Your task to perform on an android device: open app "Indeed Job Search" (install if not already installed) and enter user name: "quixotic@inbox.com" and password: "microphones" Image 0: 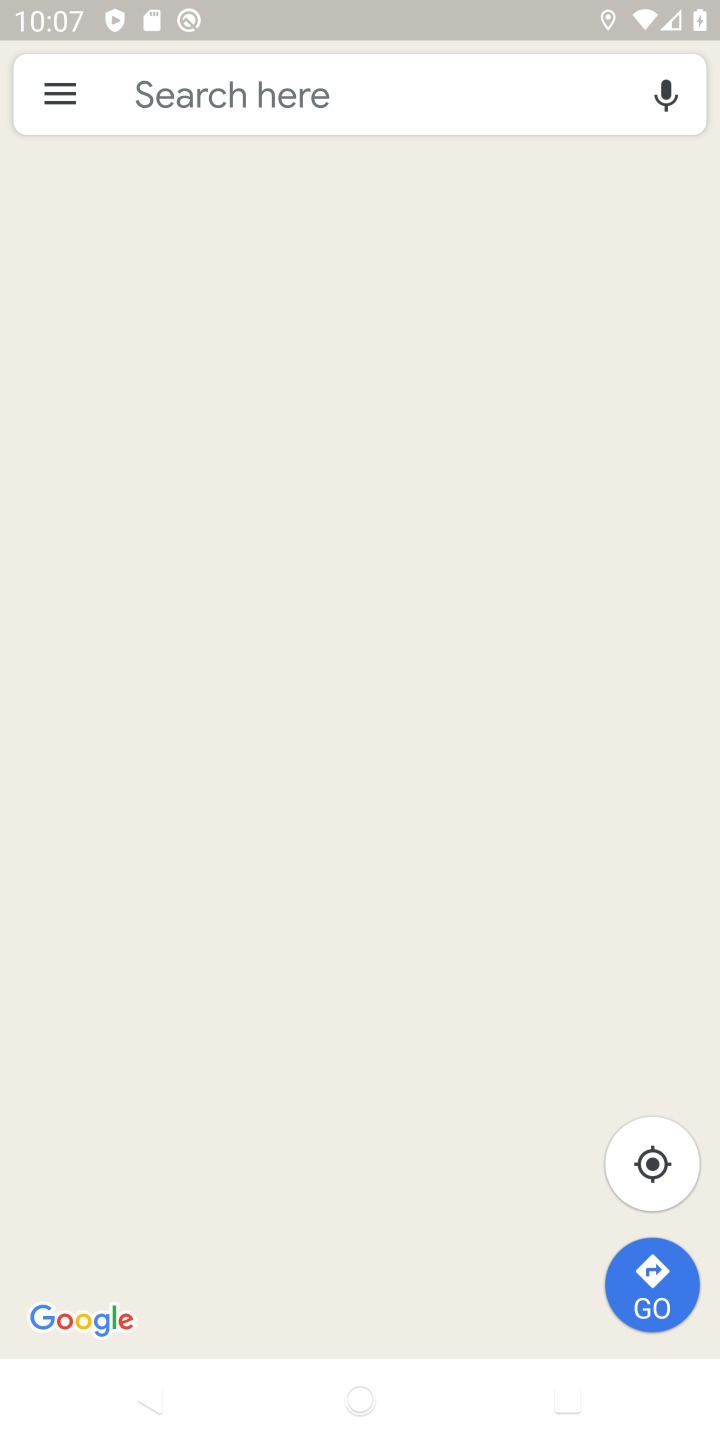
Step 0: press home button
Your task to perform on an android device: open app "Indeed Job Search" (install if not already installed) and enter user name: "quixotic@inbox.com" and password: "microphones" Image 1: 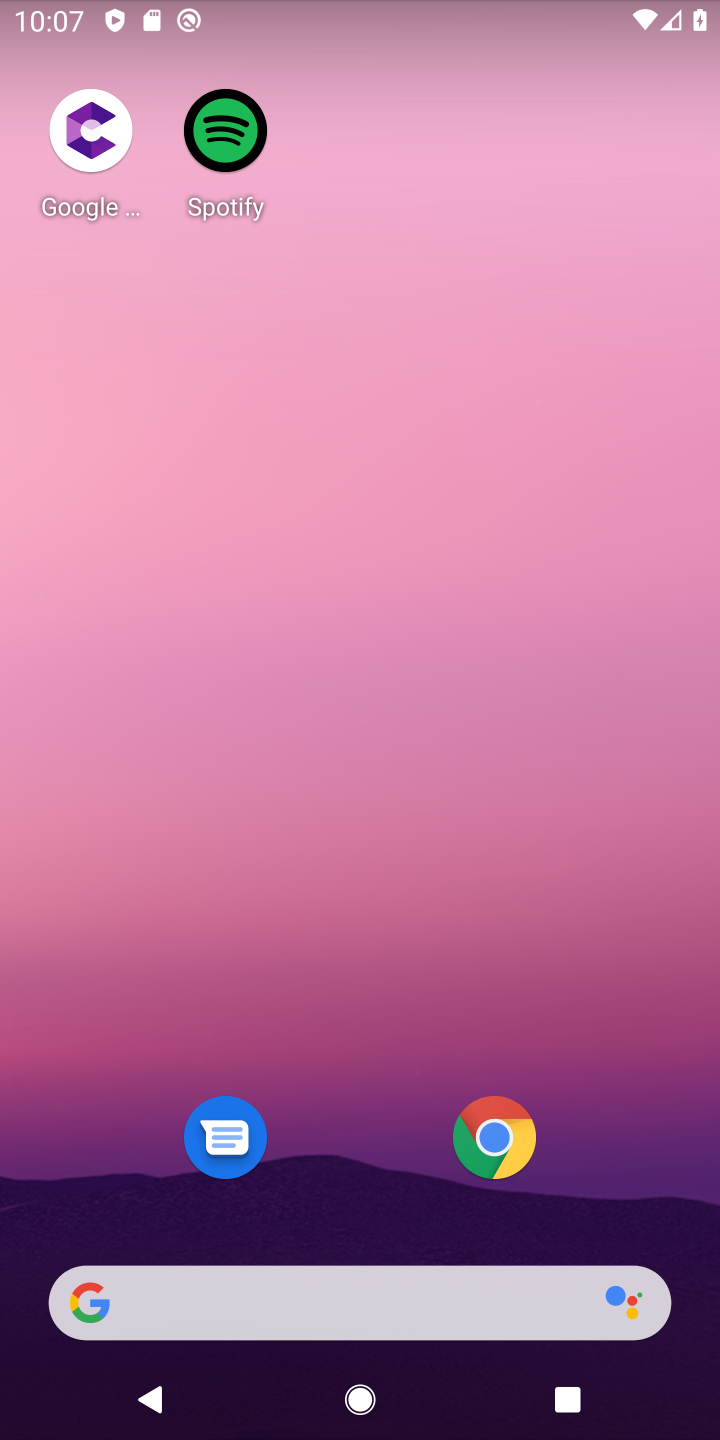
Step 1: press home button
Your task to perform on an android device: open app "Indeed Job Search" (install if not already installed) and enter user name: "quixotic@inbox.com" and password: "microphones" Image 2: 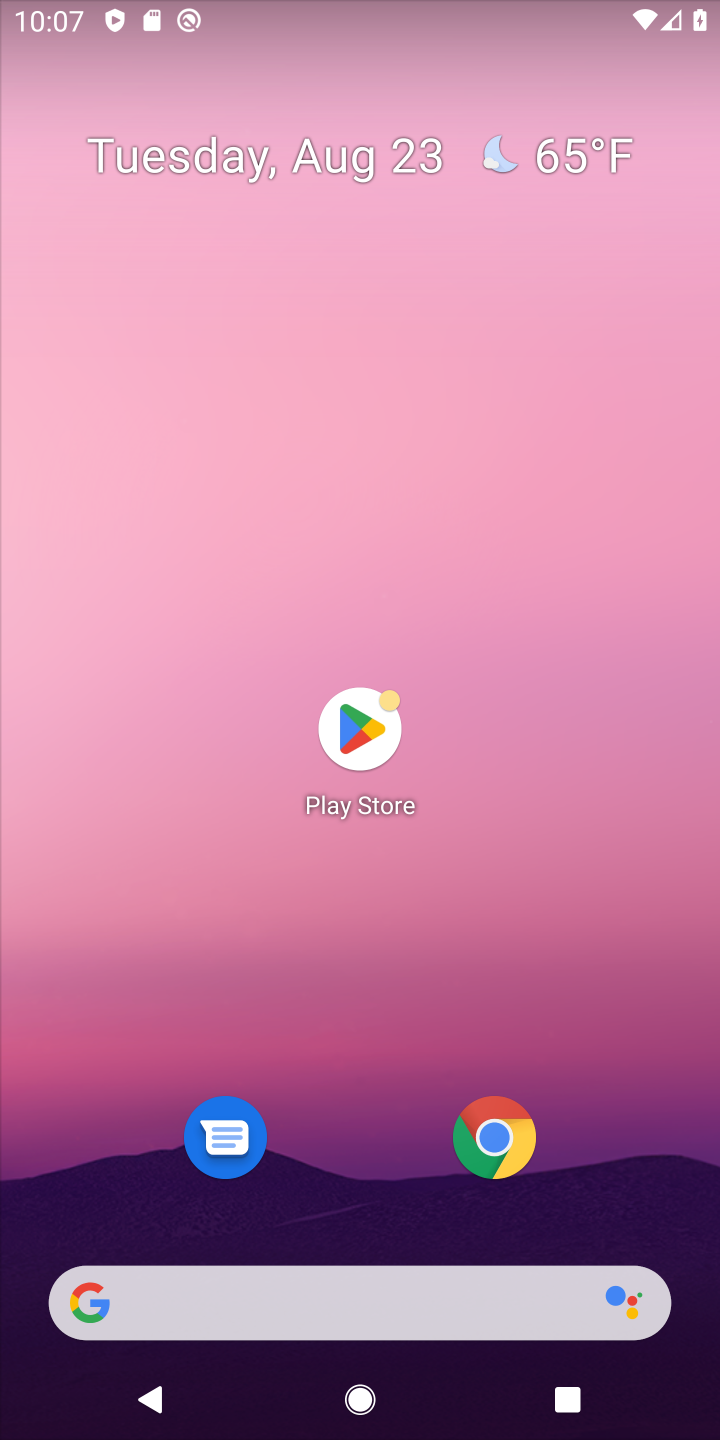
Step 2: click (364, 733)
Your task to perform on an android device: open app "Indeed Job Search" (install if not already installed) and enter user name: "quixotic@inbox.com" and password: "microphones" Image 3: 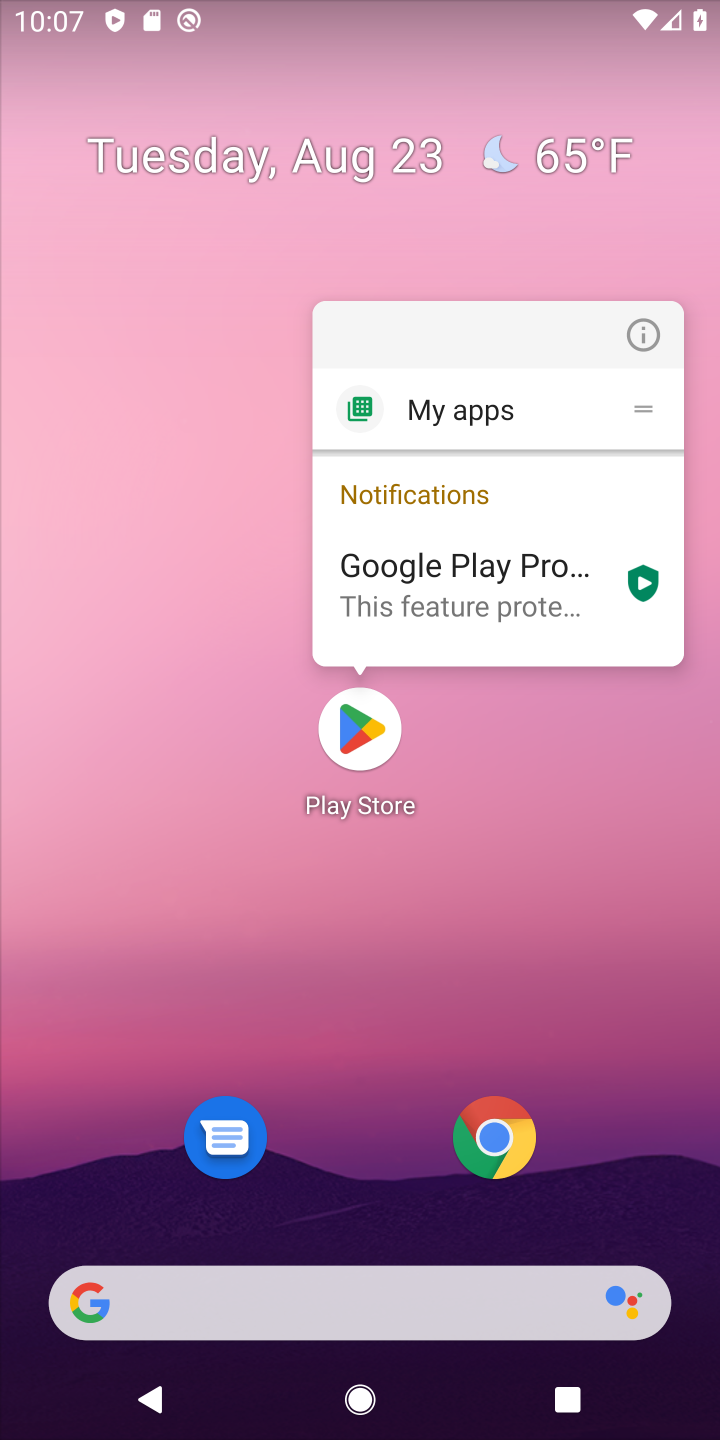
Step 3: click (364, 747)
Your task to perform on an android device: open app "Indeed Job Search" (install if not already installed) and enter user name: "quixotic@inbox.com" and password: "microphones" Image 4: 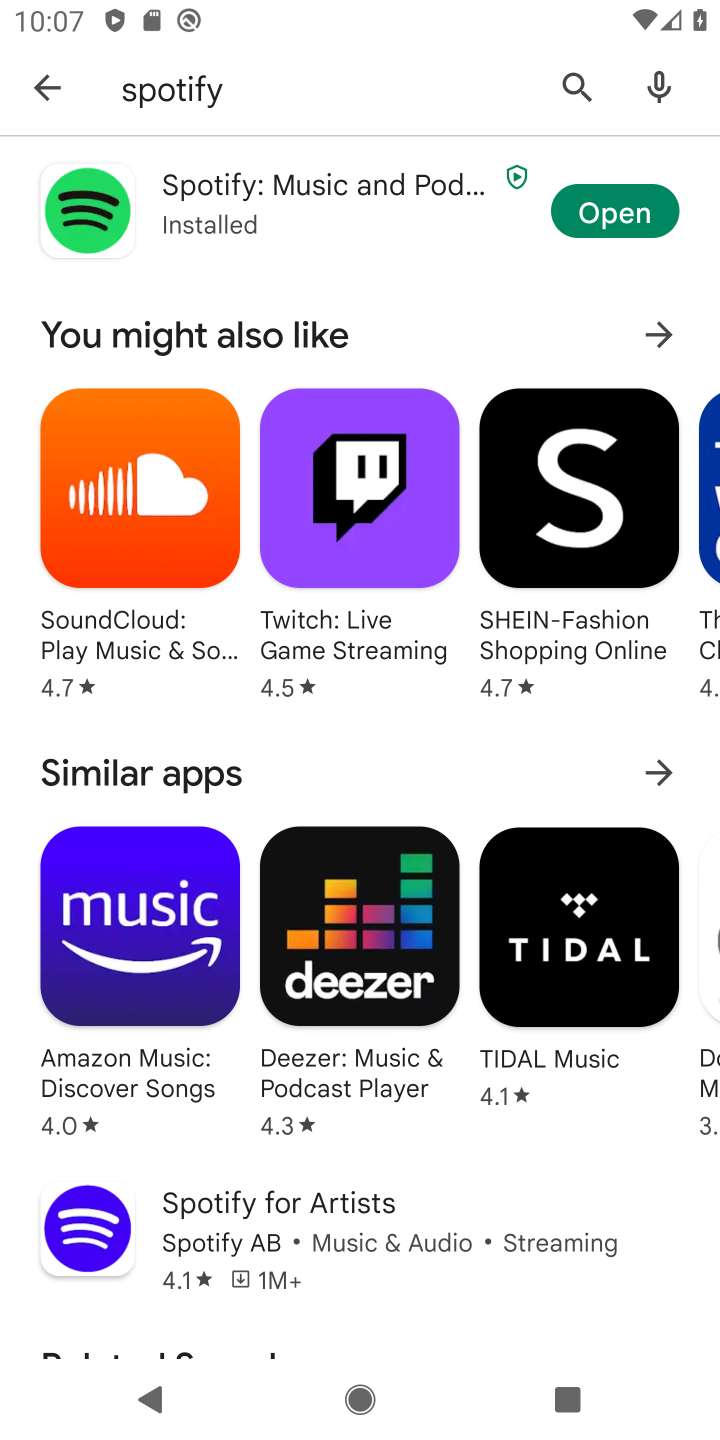
Step 4: click (563, 83)
Your task to perform on an android device: open app "Indeed Job Search" (install if not already installed) and enter user name: "quixotic@inbox.com" and password: "microphones" Image 5: 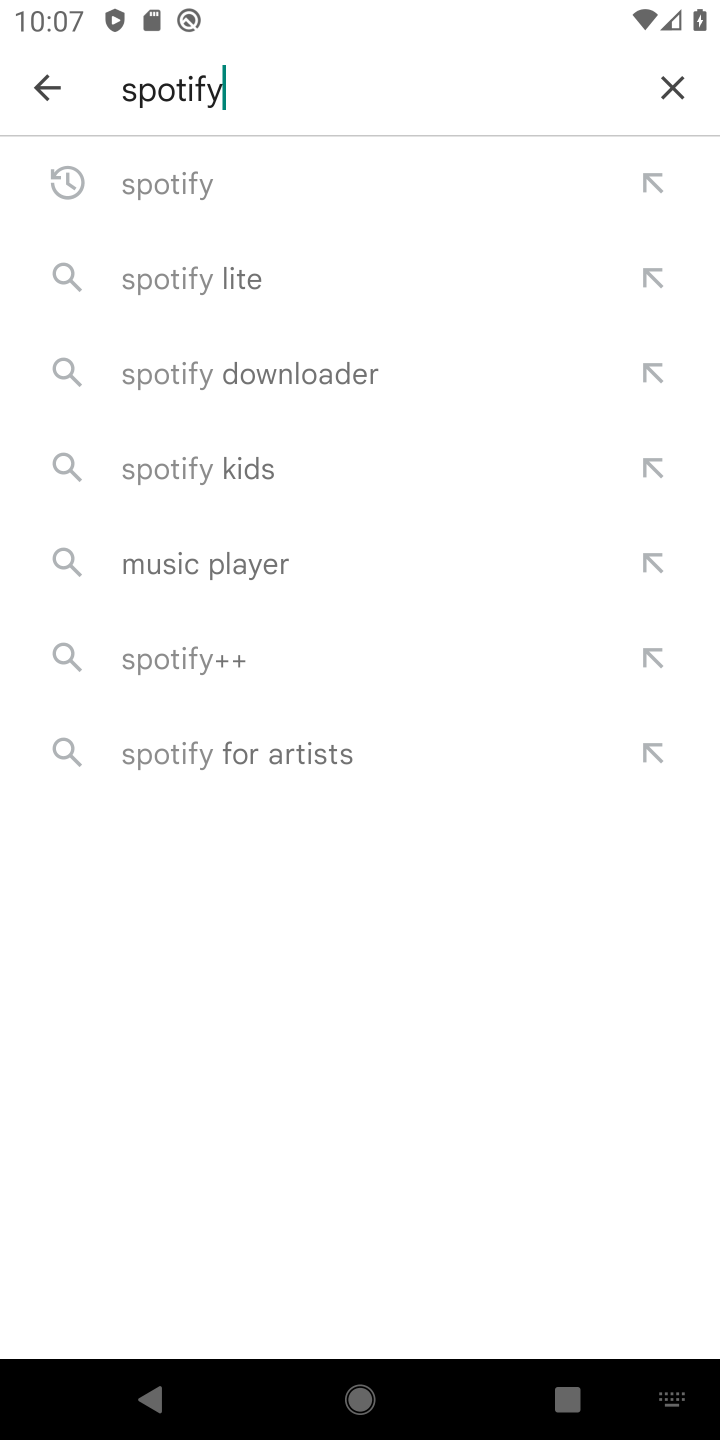
Step 5: click (669, 78)
Your task to perform on an android device: open app "Indeed Job Search" (install if not already installed) and enter user name: "quixotic@inbox.com" and password: "microphones" Image 6: 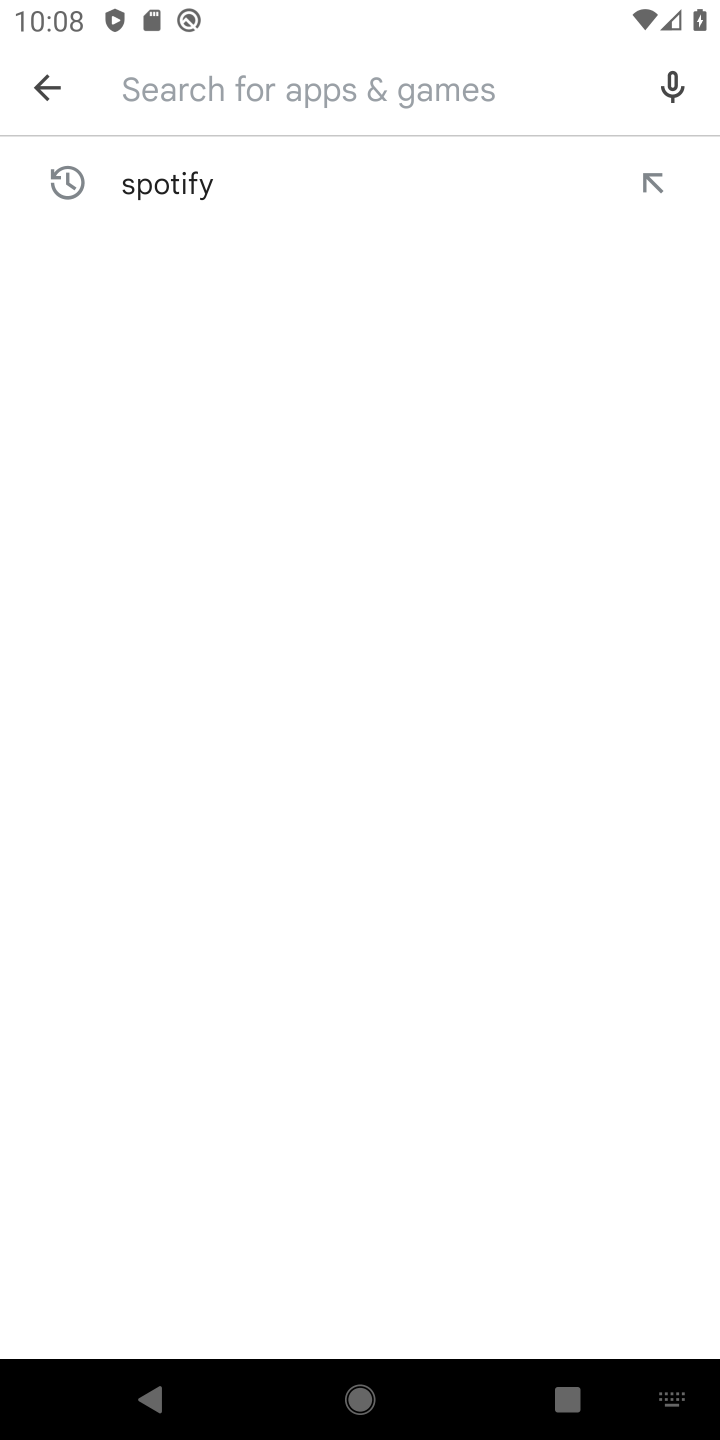
Step 6: type "Indeed Job Search"
Your task to perform on an android device: open app "Indeed Job Search" (install if not already installed) and enter user name: "quixotic@inbox.com" and password: "microphones" Image 7: 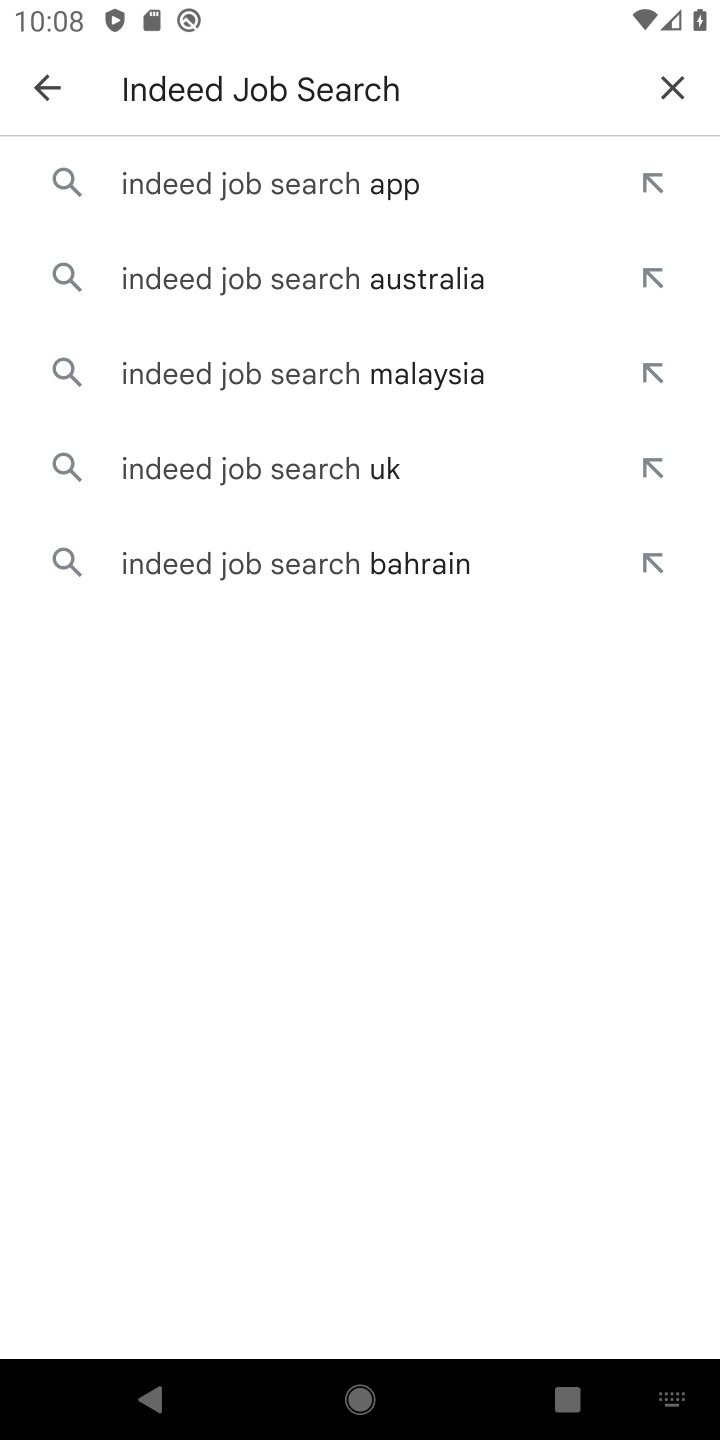
Step 7: click (311, 191)
Your task to perform on an android device: open app "Indeed Job Search" (install if not already installed) and enter user name: "quixotic@inbox.com" and password: "microphones" Image 8: 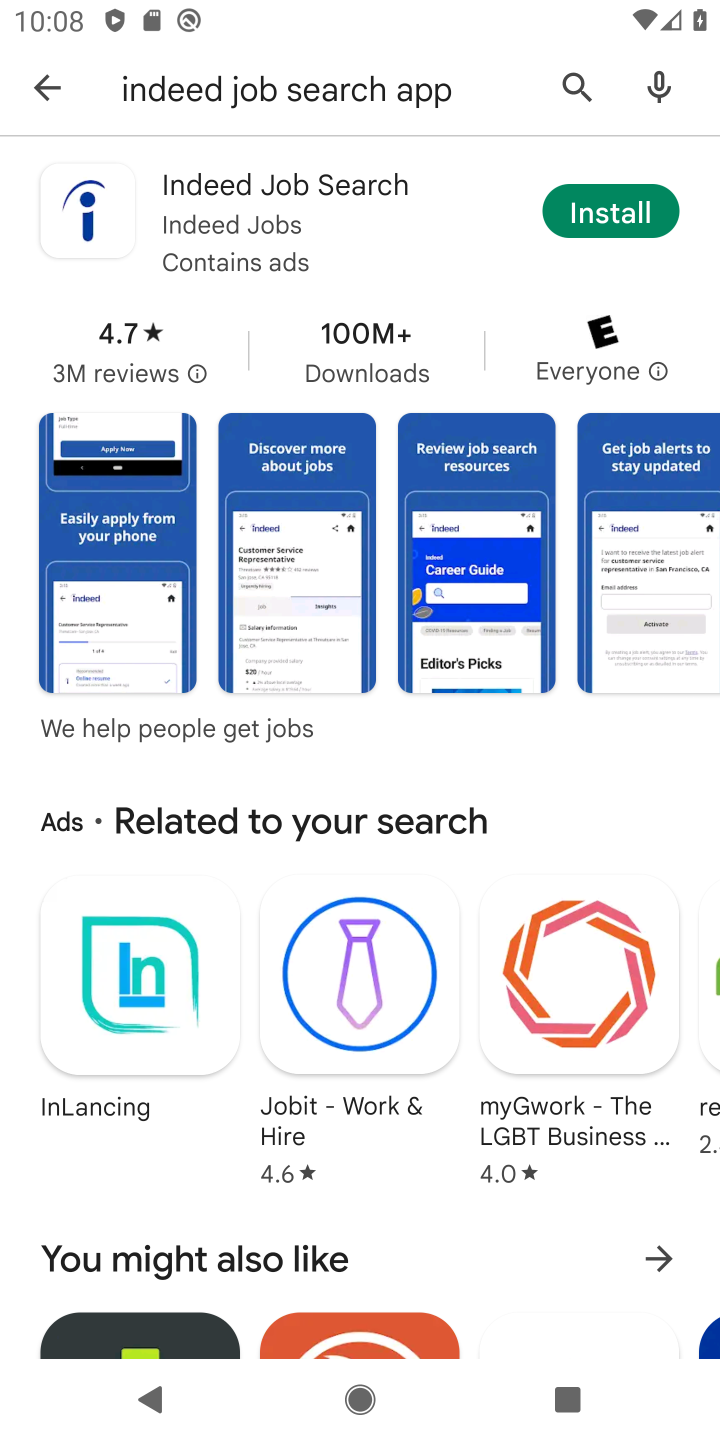
Step 8: click (615, 215)
Your task to perform on an android device: open app "Indeed Job Search" (install if not already installed) and enter user name: "quixotic@inbox.com" and password: "microphones" Image 9: 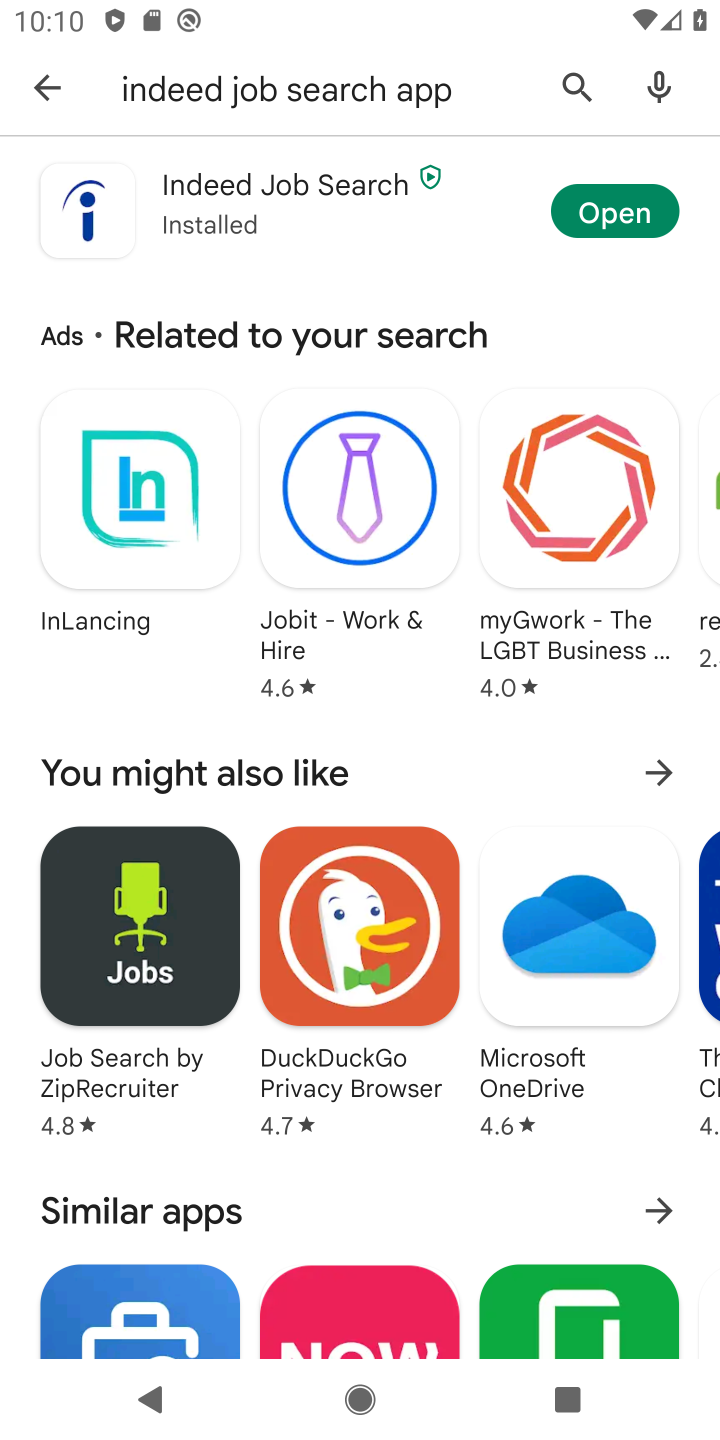
Step 9: click (607, 226)
Your task to perform on an android device: open app "Indeed Job Search" (install if not already installed) and enter user name: "quixotic@inbox.com" and password: "microphones" Image 10: 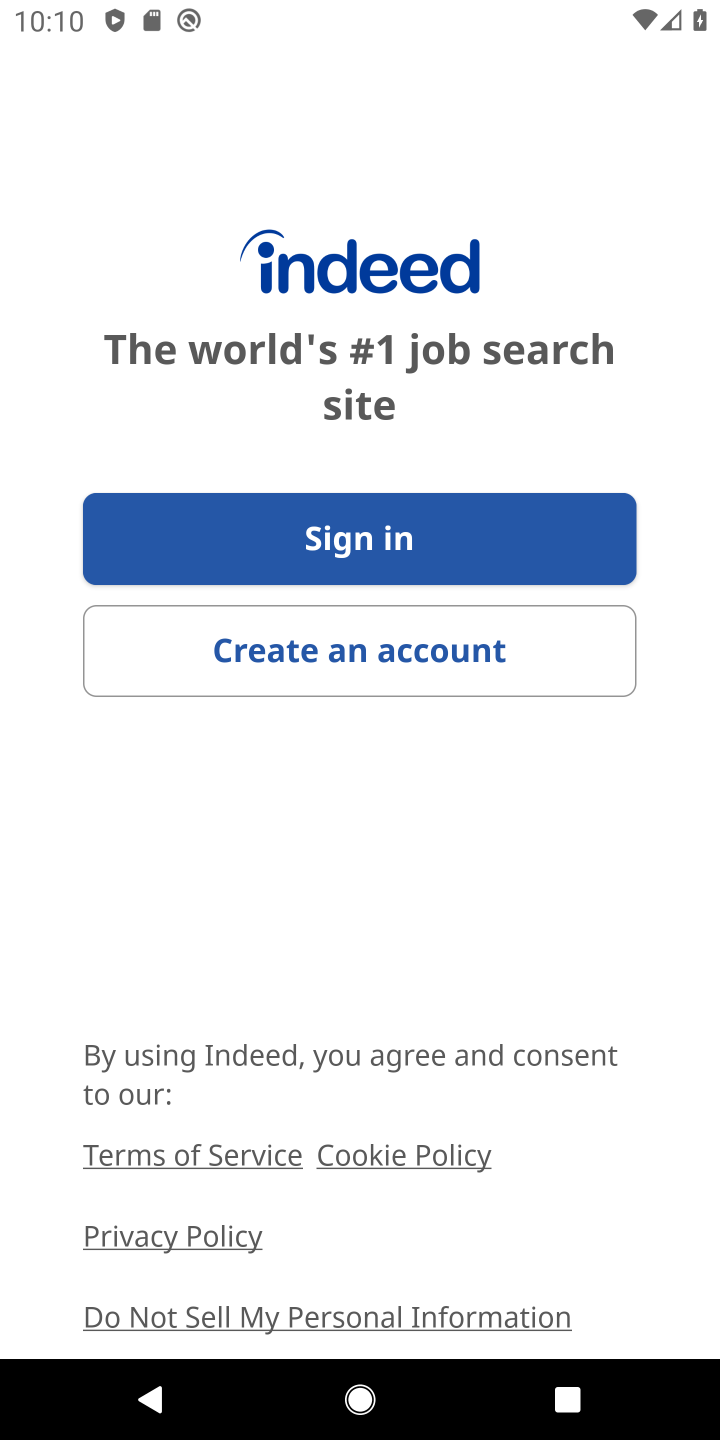
Step 10: click (396, 541)
Your task to perform on an android device: open app "Indeed Job Search" (install if not already installed) and enter user name: "quixotic@inbox.com" and password: "microphones" Image 11: 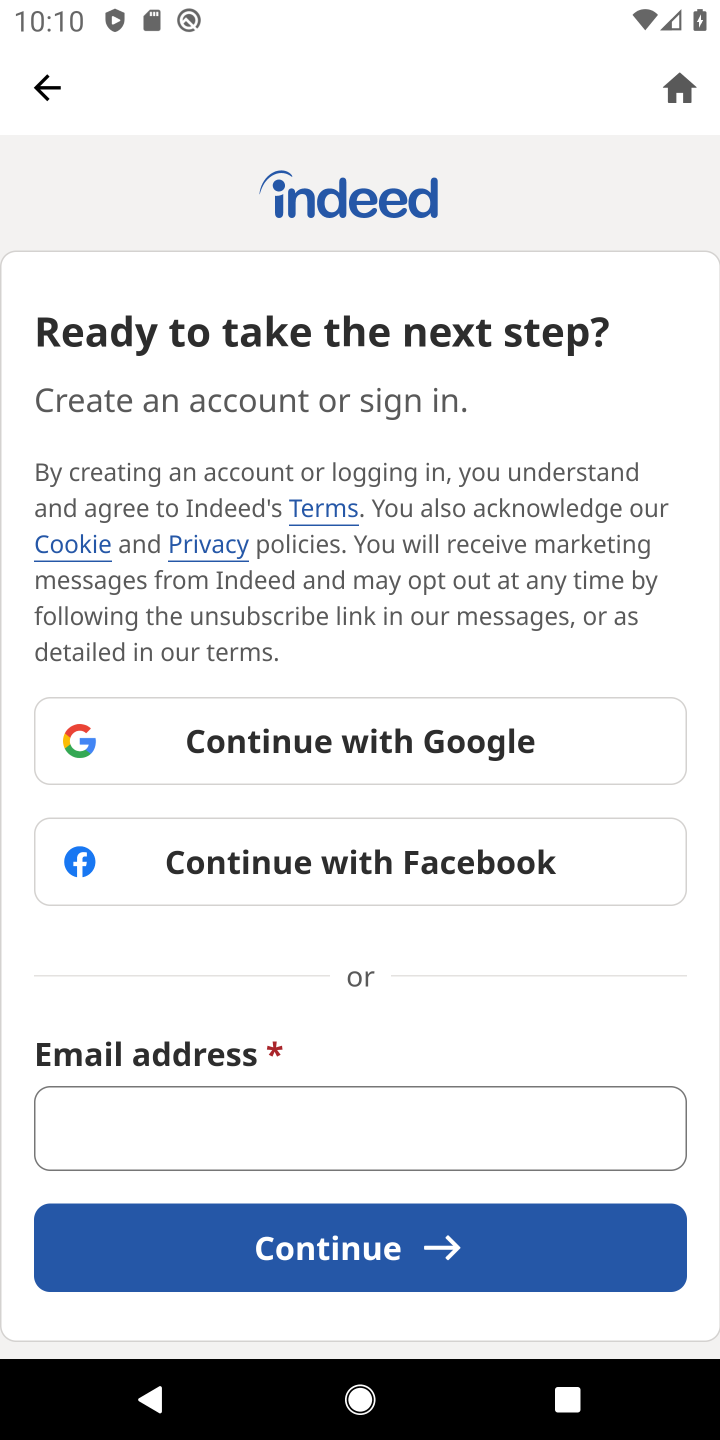
Step 11: click (119, 1135)
Your task to perform on an android device: open app "Indeed Job Search" (install if not already installed) and enter user name: "quixotic@inbox.com" and password: "microphones" Image 12: 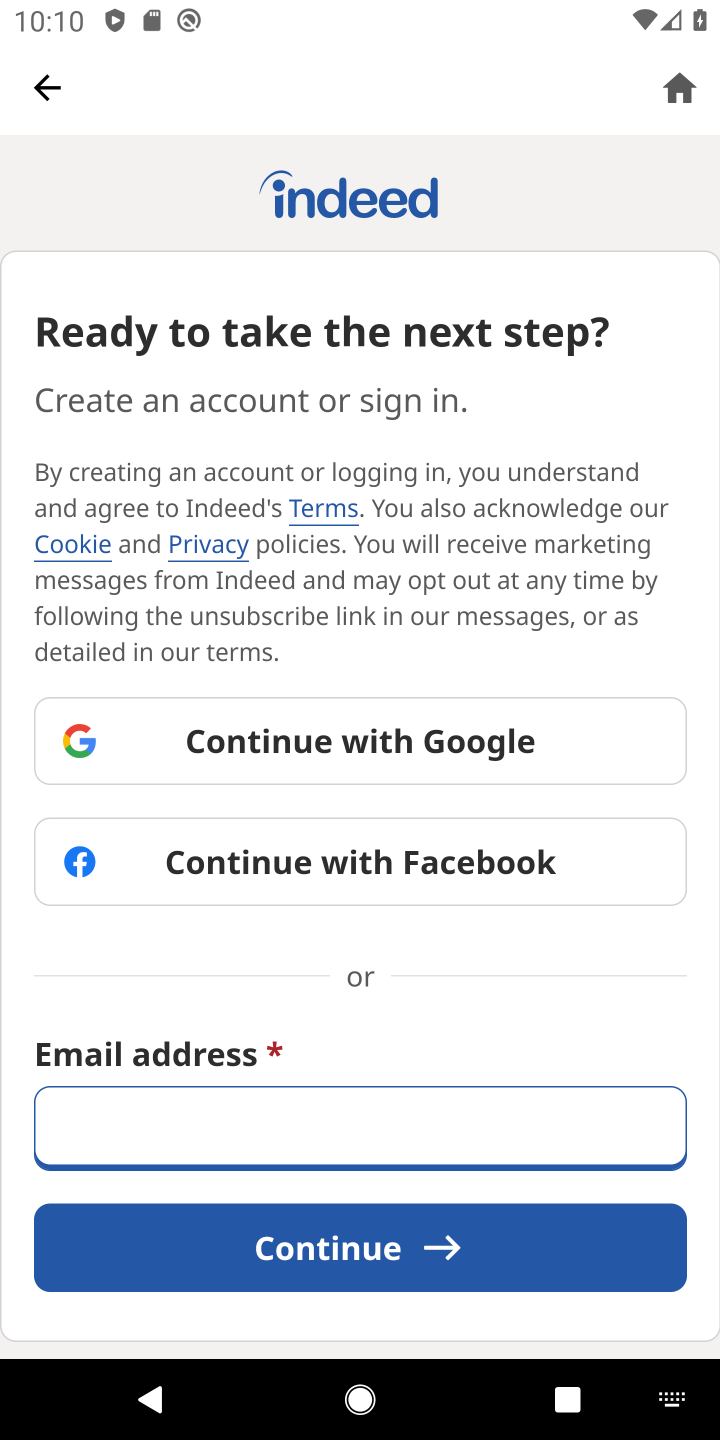
Step 12: type "quixotic@inbox.com"
Your task to perform on an android device: open app "Indeed Job Search" (install if not already installed) and enter user name: "quixotic@inbox.com" and password: "microphones" Image 13: 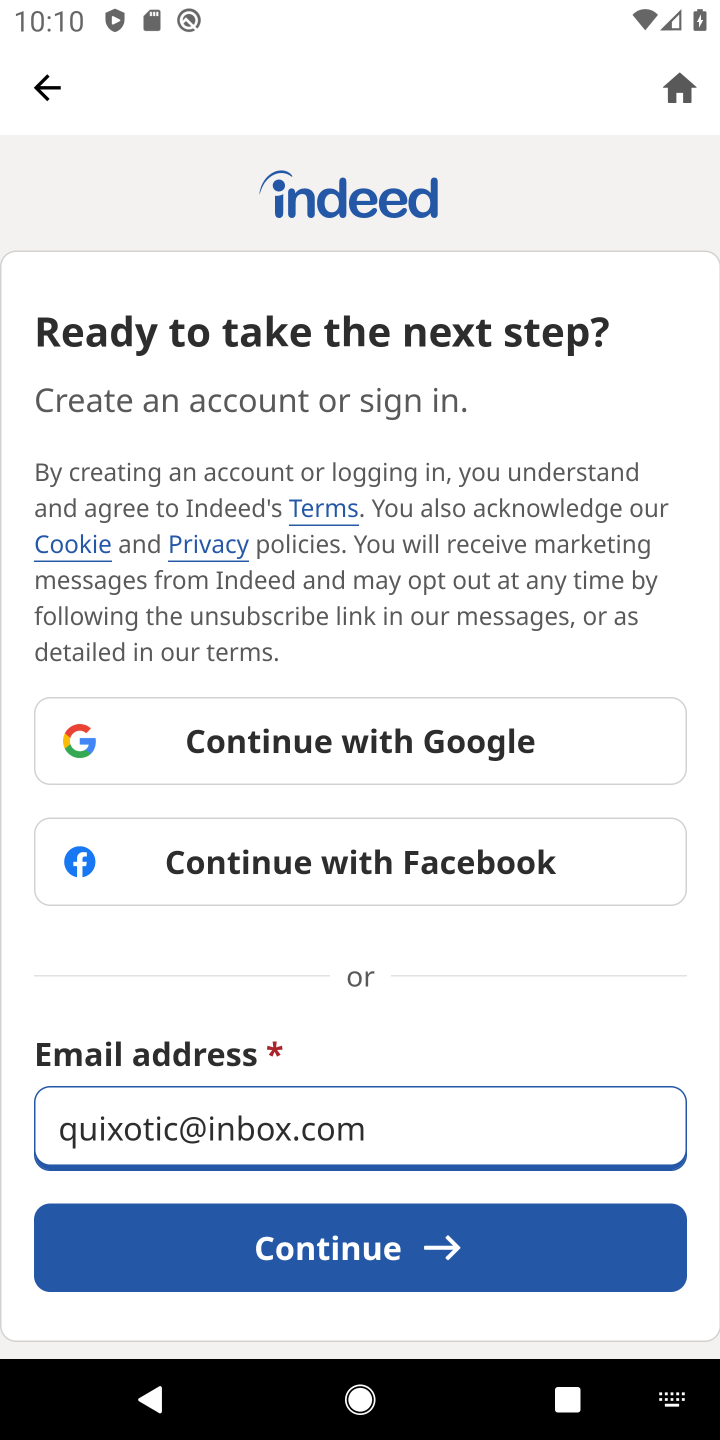
Step 13: click (369, 1244)
Your task to perform on an android device: open app "Indeed Job Search" (install if not already installed) and enter user name: "quixotic@inbox.com" and password: "microphones" Image 14: 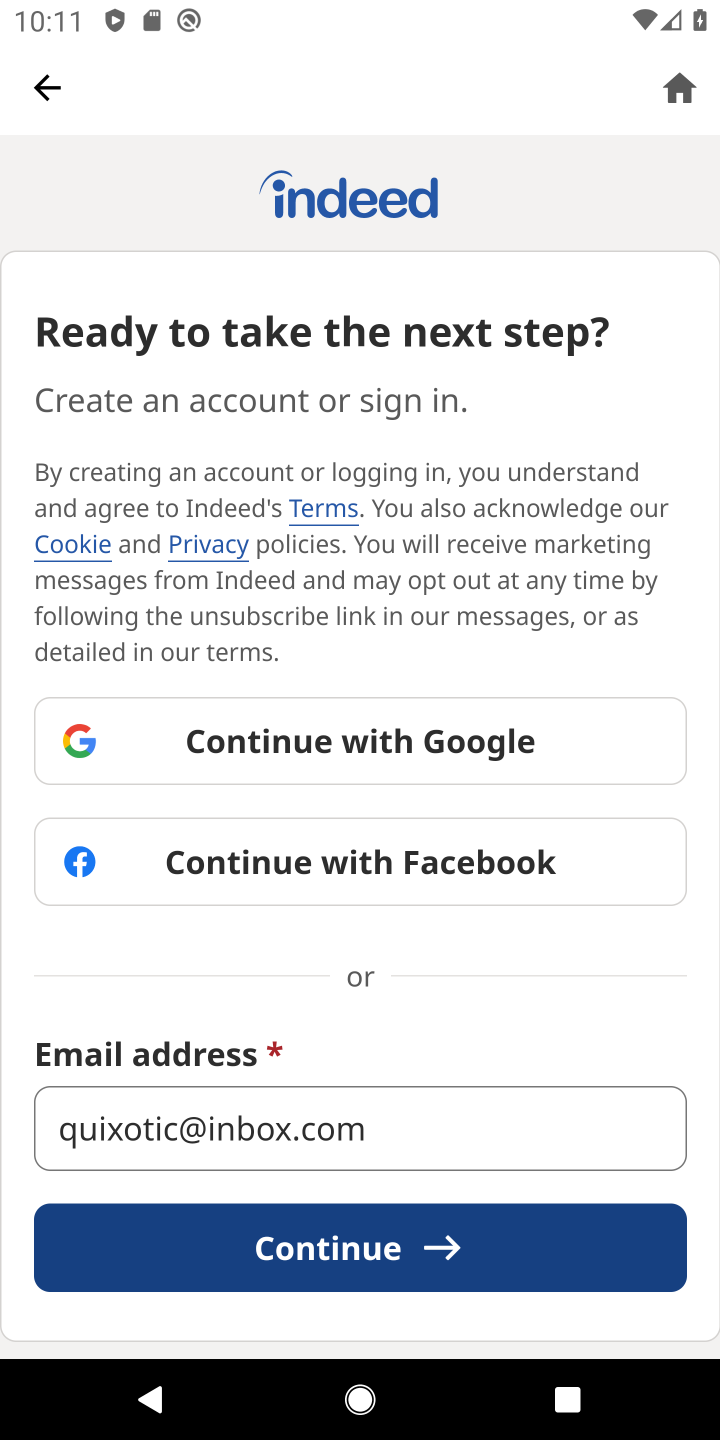
Step 14: task complete